Your task to perform on an android device: toggle airplane mode Image 0: 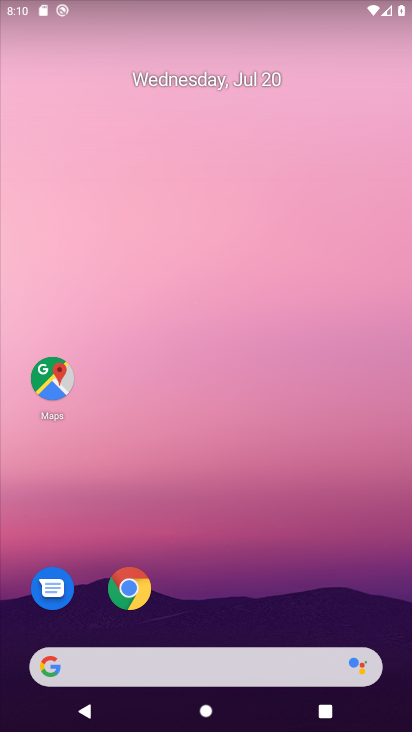
Step 0: drag from (226, 631) to (223, 235)
Your task to perform on an android device: toggle airplane mode Image 1: 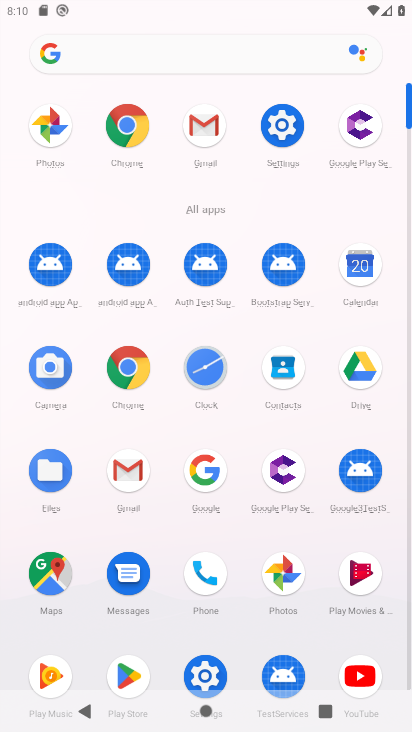
Step 1: drag from (229, 15) to (249, 424)
Your task to perform on an android device: toggle airplane mode Image 2: 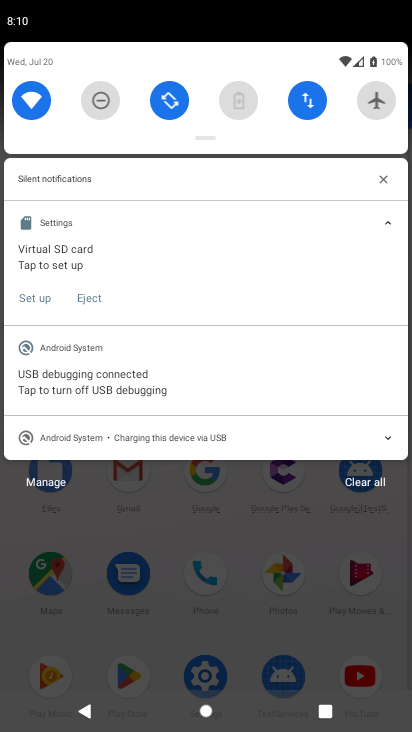
Step 2: click (369, 99)
Your task to perform on an android device: toggle airplane mode Image 3: 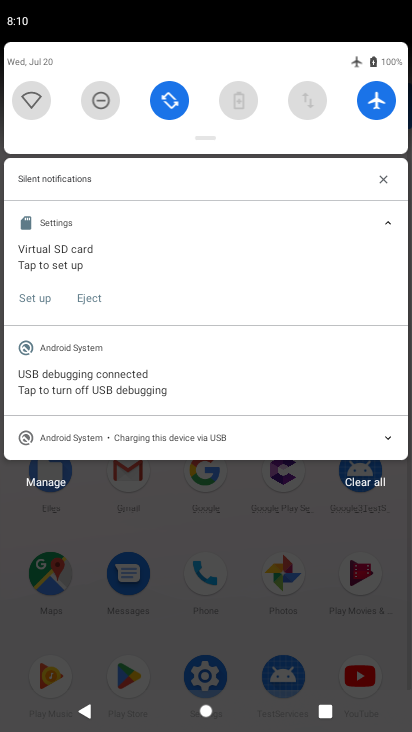
Step 3: task complete